Your task to perform on an android device: Open my contact list Image 0: 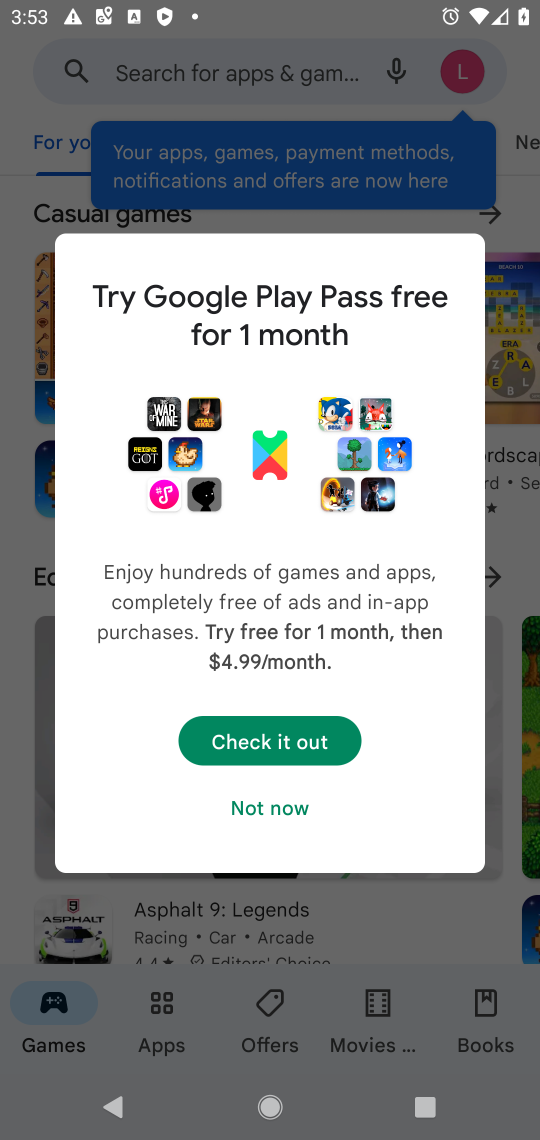
Step 0: press home button
Your task to perform on an android device: Open my contact list Image 1: 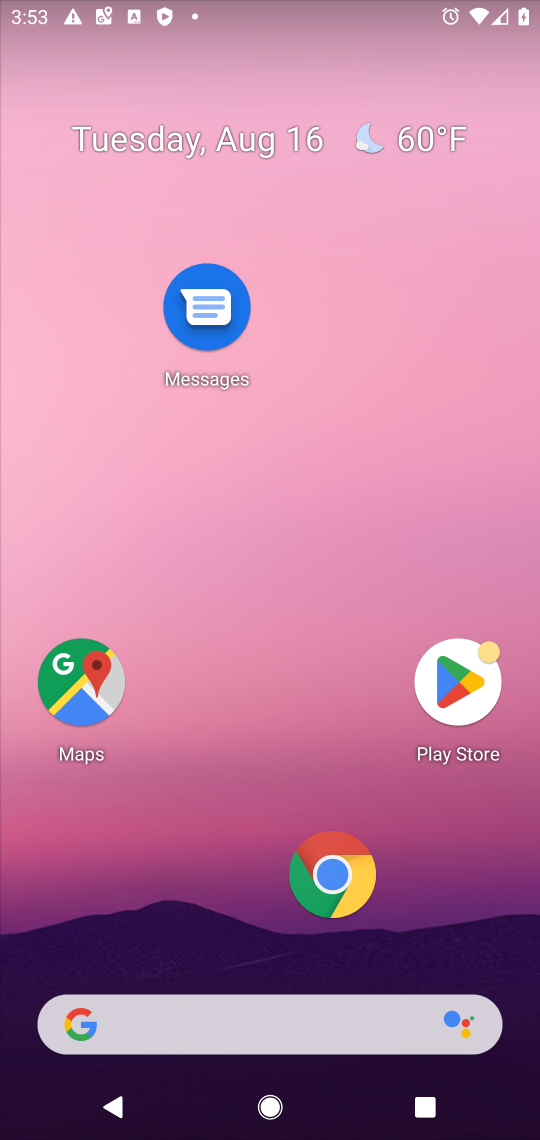
Step 1: drag from (264, 949) to (112, 256)
Your task to perform on an android device: Open my contact list Image 2: 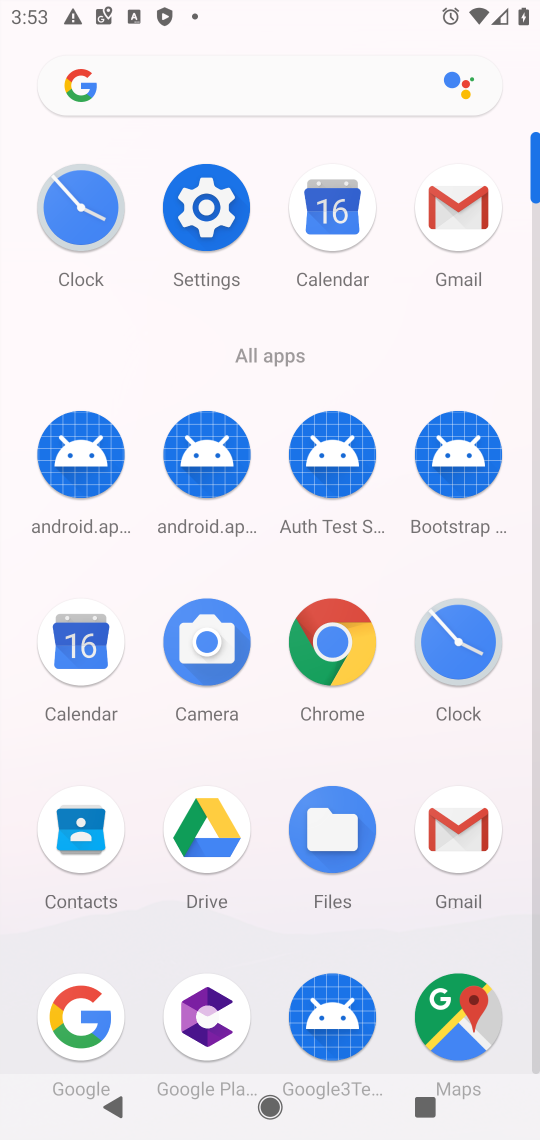
Step 2: click (90, 822)
Your task to perform on an android device: Open my contact list Image 3: 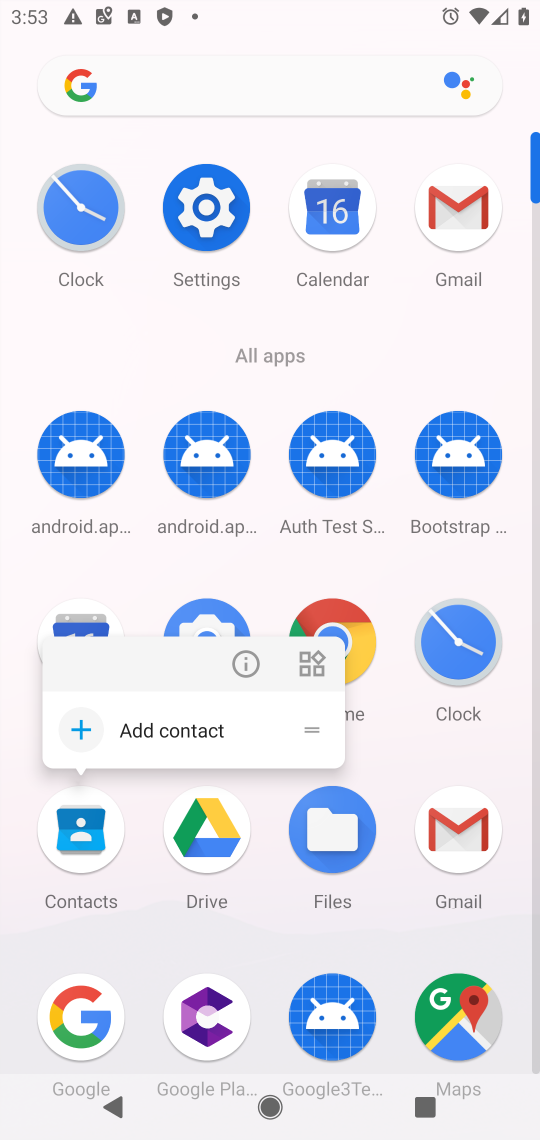
Step 3: click (74, 844)
Your task to perform on an android device: Open my contact list Image 4: 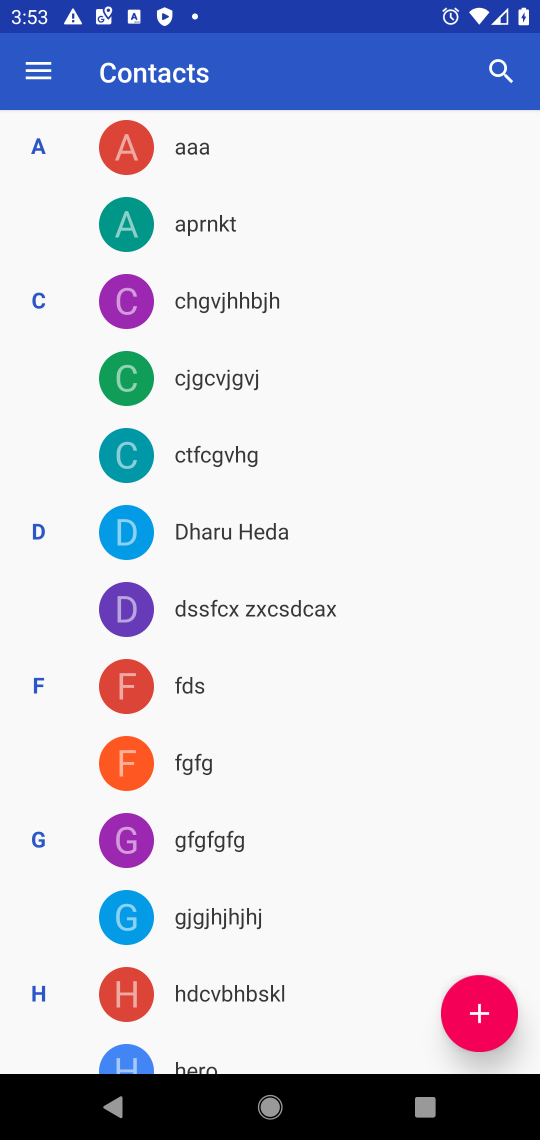
Step 4: task complete